Your task to perform on an android device: open the mobile data screen to see how much data has been used Image 0: 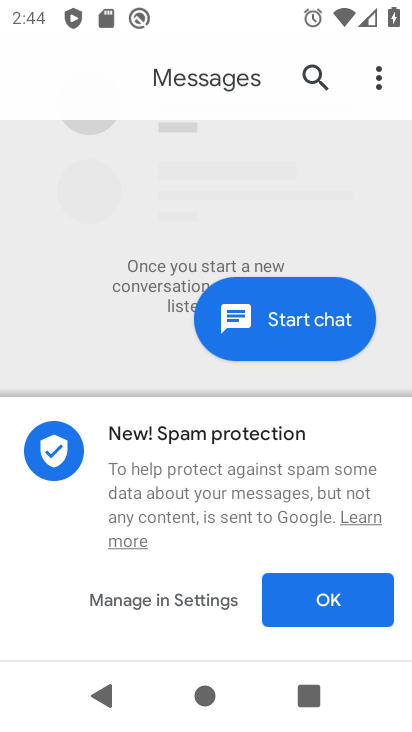
Step 0: press home button
Your task to perform on an android device: open the mobile data screen to see how much data has been used Image 1: 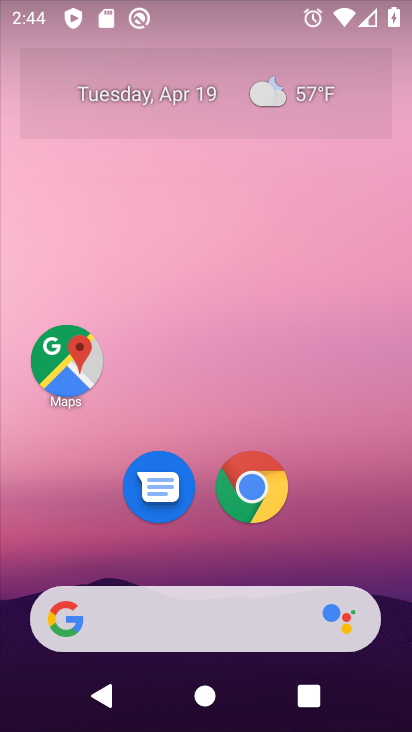
Step 1: drag from (380, 512) to (361, 138)
Your task to perform on an android device: open the mobile data screen to see how much data has been used Image 2: 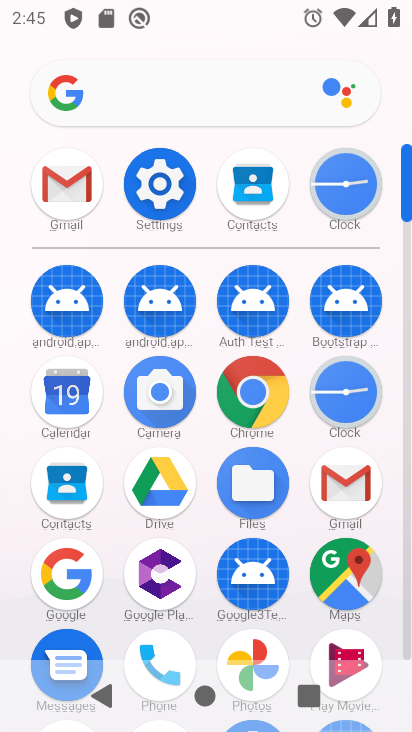
Step 2: click (172, 187)
Your task to perform on an android device: open the mobile data screen to see how much data has been used Image 3: 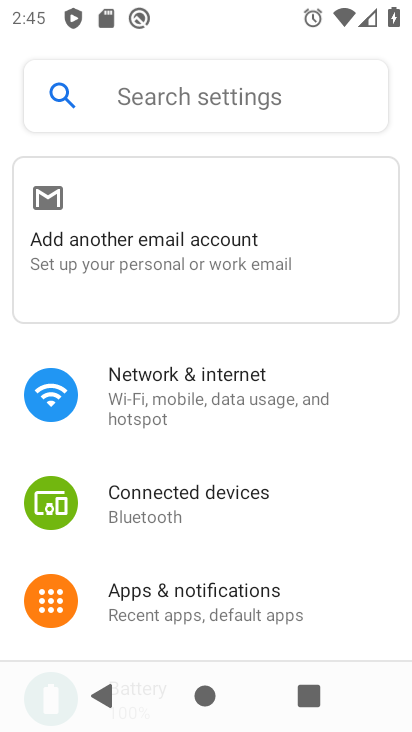
Step 3: click (242, 395)
Your task to perform on an android device: open the mobile data screen to see how much data has been used Image 4: 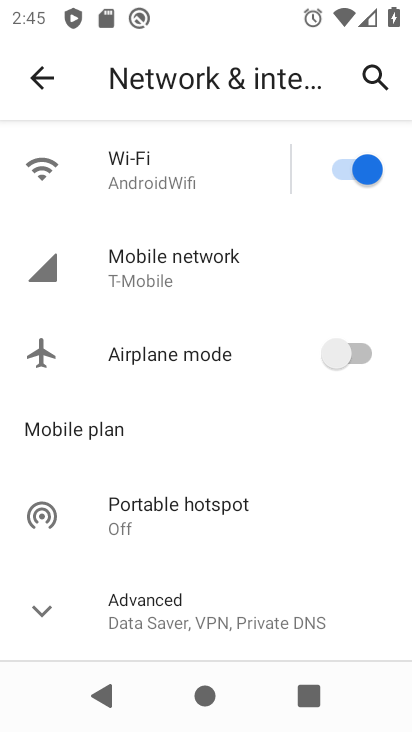
Step 4: click (209, 268)
Your task to perform on an android device: open the mobile data screen to see how much data has been used Image 5: 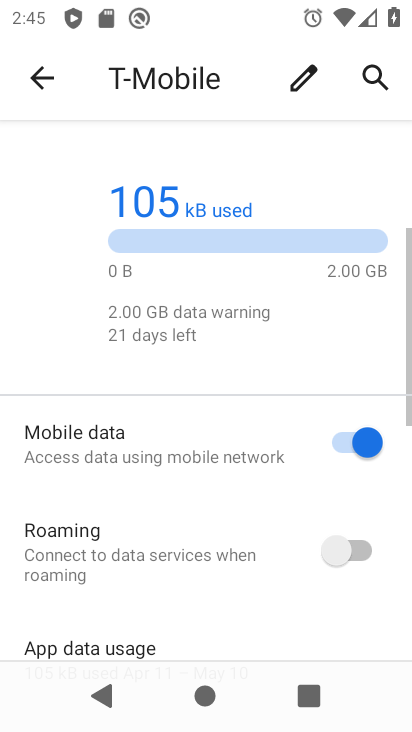
Step 5: drag from (249, 626) to (260, 299)
Your task to perform on an android device: open the mobile data screen to see how much data has been used Image 6: 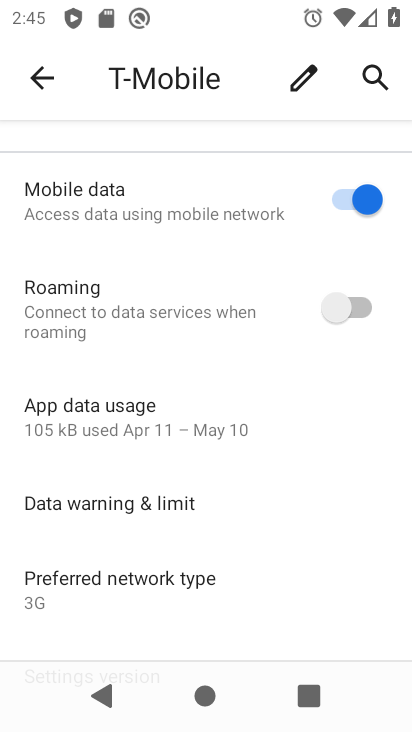
Step 6: click (189, 418)
Your task to perform on an android device: open the mobile data screen to see how much data has been used Image 7: 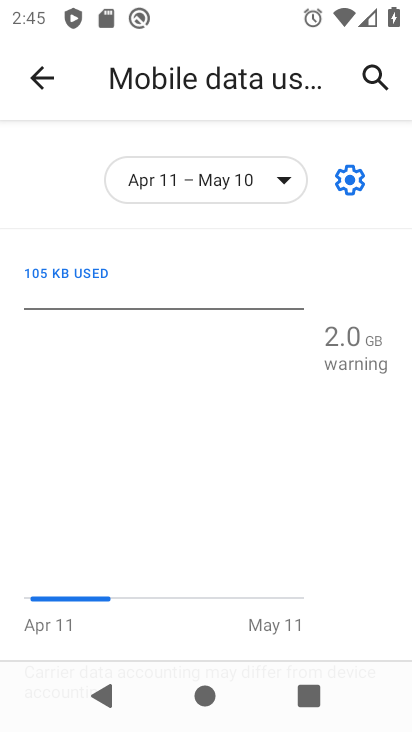
Step 7: task complete